Your task to perform on an android device: Go to display settings Image 0: 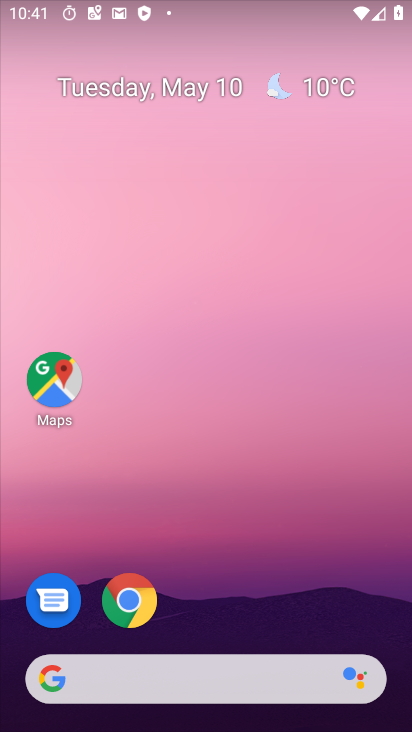
Step 0: drag from (225, 591) to (225, 15)
Your task to perform on an android device: Go to display settings Image 1: 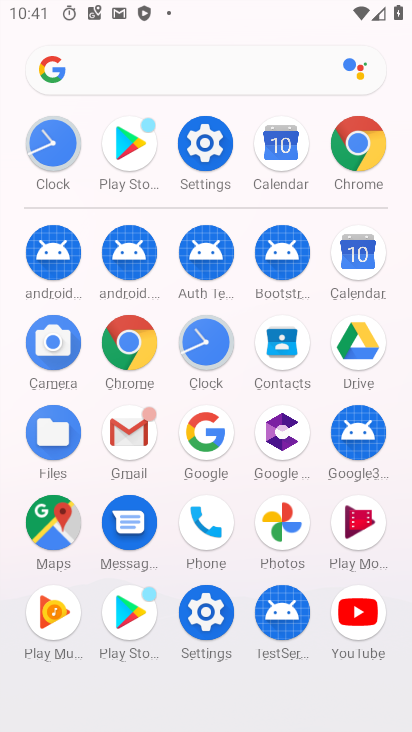
Step 1: drag from (16, 532) to (17, 226)
Your task to perform on an android device: Go to display settings Image 2: 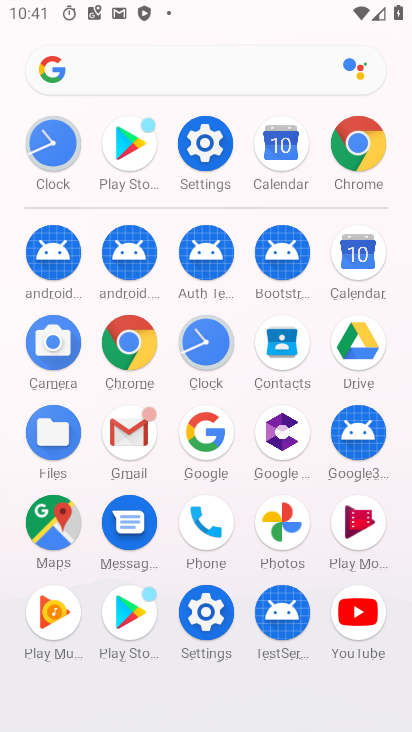
Step 2: click (201, 608)
Your task to perform on an android device: Go to display settings Image 3: 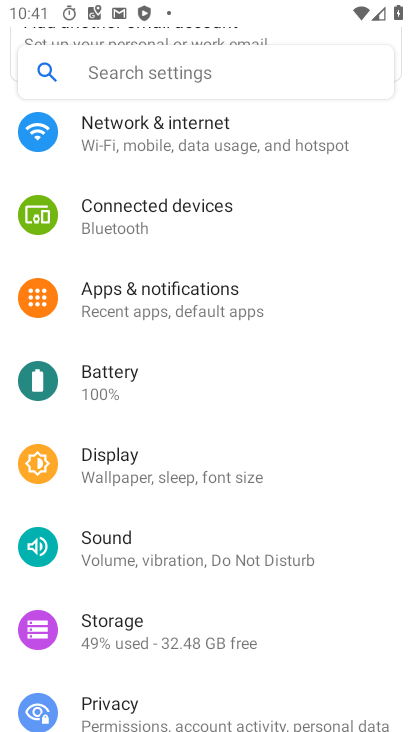
Step 3: drag from (347, 487) to (344, 133)
Your task to perform on an android device: Go to display settings Image 4: 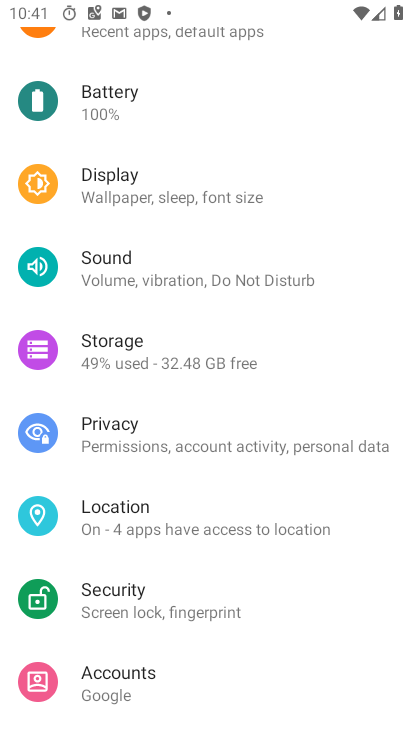
Step 4: drag from (279, 476) to (279, 91)
Your task to perform on an android device: Go to display settings Image 5: 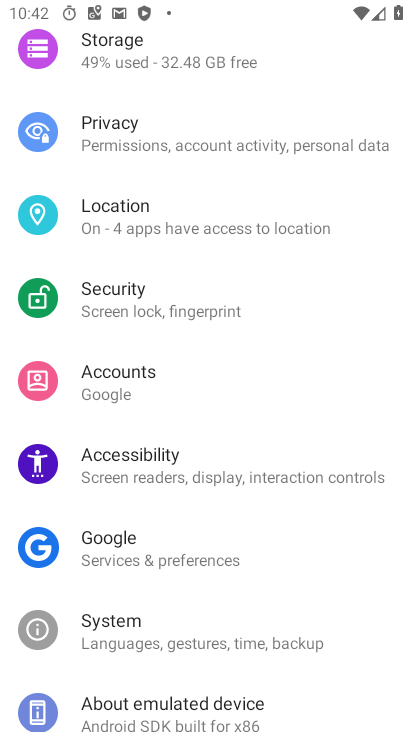
Step 5: drag from (261, 512) to (256, 78)
Your task to perform on an android device: Go to display settings Image 6: 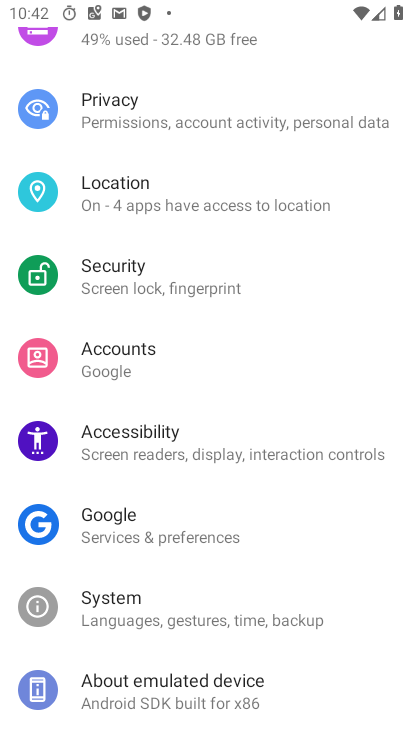
Step 6: drag from (214, 177) to (217, 595)
Your task to perform on an android device: Go to display settings Image 7: 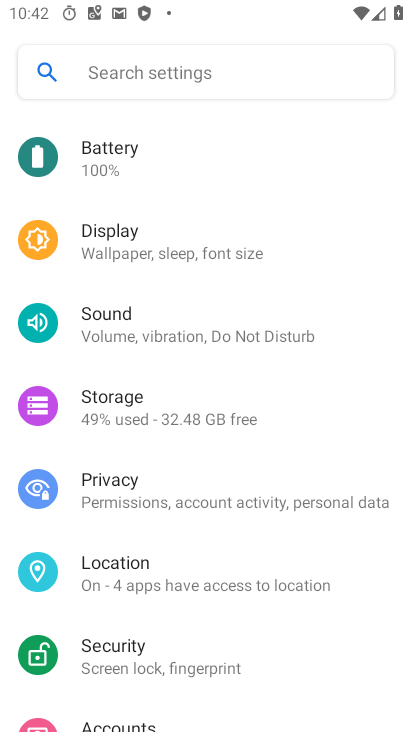
Step 7: drag from (268, 197) to (253, 502)
Your task to perform on an android device: Go to display settings Image 8: 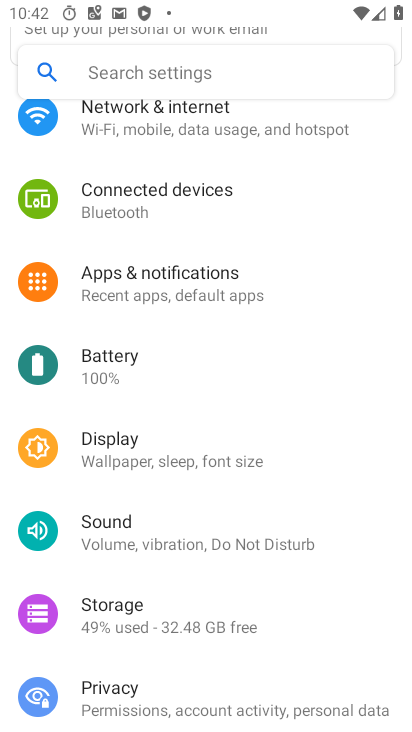
Step 8: click (133, 444)
Your task to perform on an android device: Go to display settings Image 9: 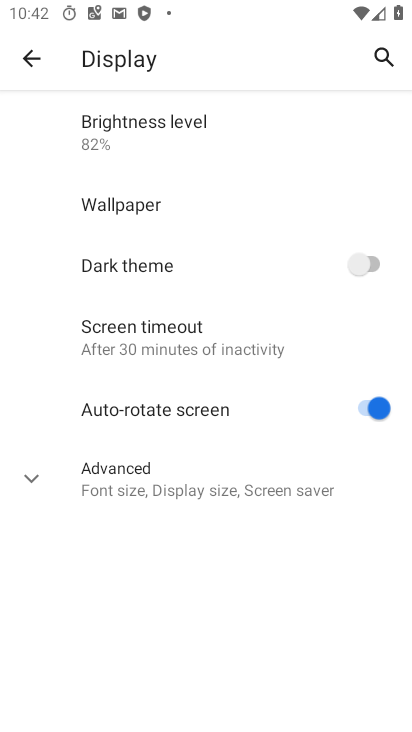
Step 9: click (27, 475)
Your task to perform on an android device: Go to display settings Image 10: 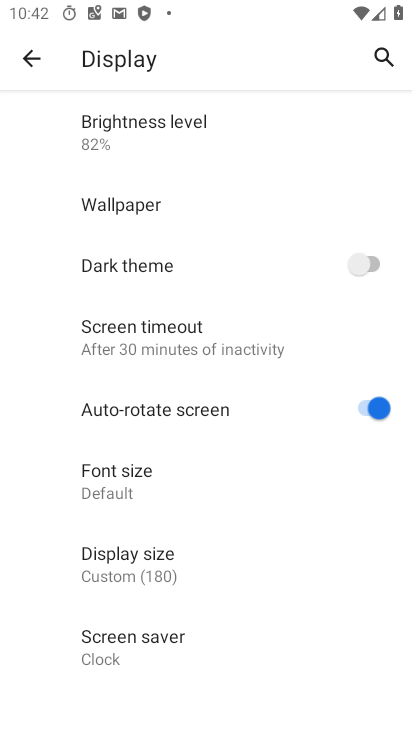
Step 10: task complete